Your task to perform on an android device: toggle airplane mode Image 0: 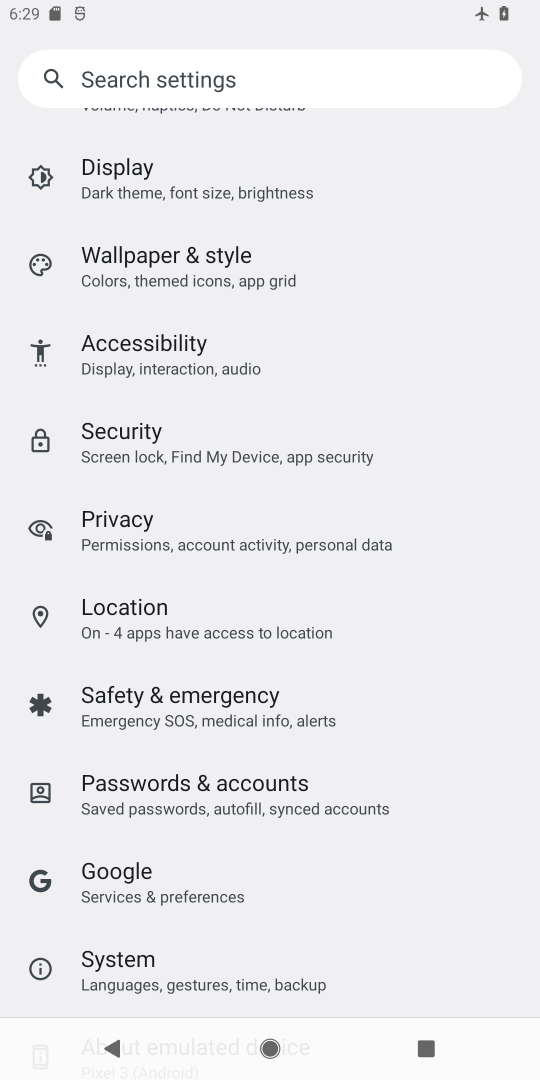
Step 0: press back button
Your task to perform on an android device: toggle airplane mode Image 1: 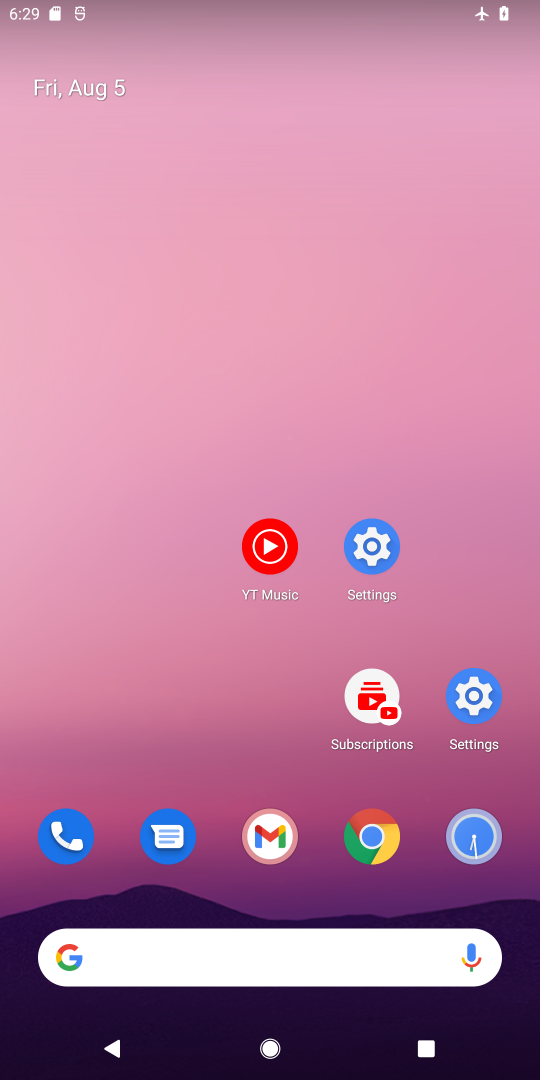
Step 1: drag from (360, 918) to (324, 581)
Your task to perform on an android device: toggle airplane mode Image 2: 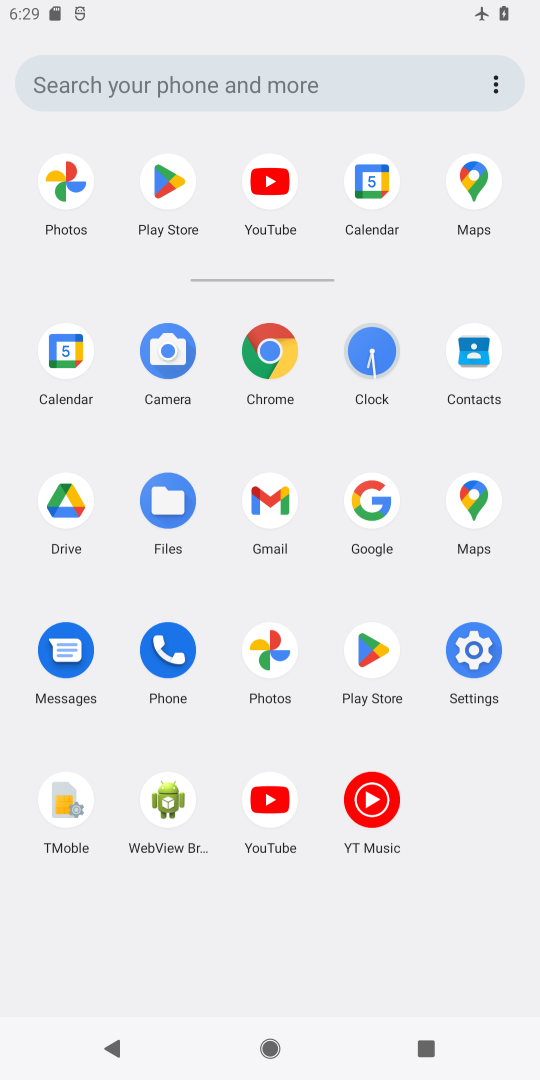
Step 2: drag from (340, 908) to (271, 384)
Your task to perform on an android device: toggle airplane mode Image 3: 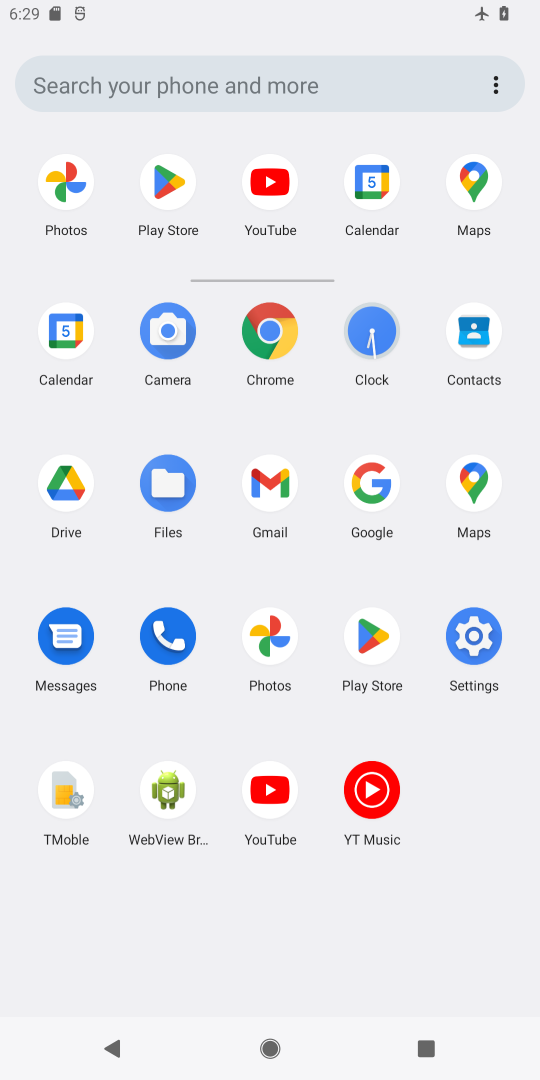
Step 3: click (289, 618)
Your task to perform on an android device: toggle airplane mode Image 4: 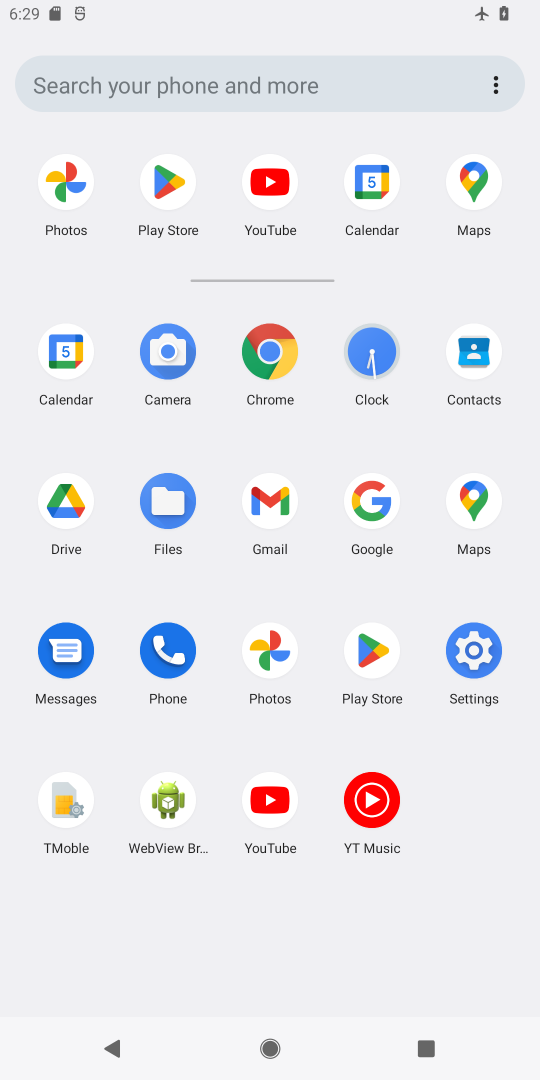
Step 4: click (466, 655)
Your task to perform on an android device: toggle airplane mode Image 5: 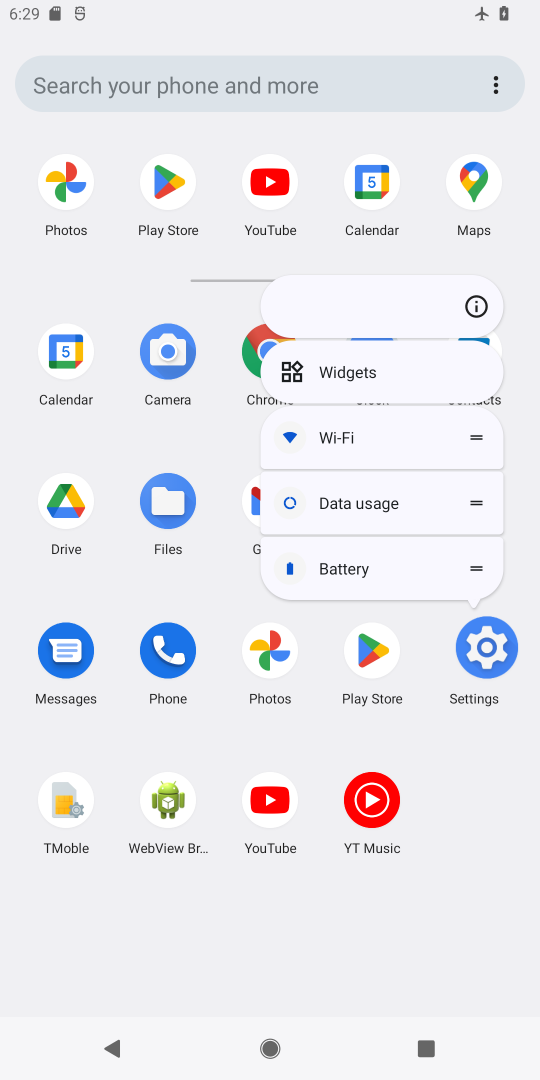
Step 5: click (479, 652)
Your task to perform on an android device: toggle airplane mode Image 6: 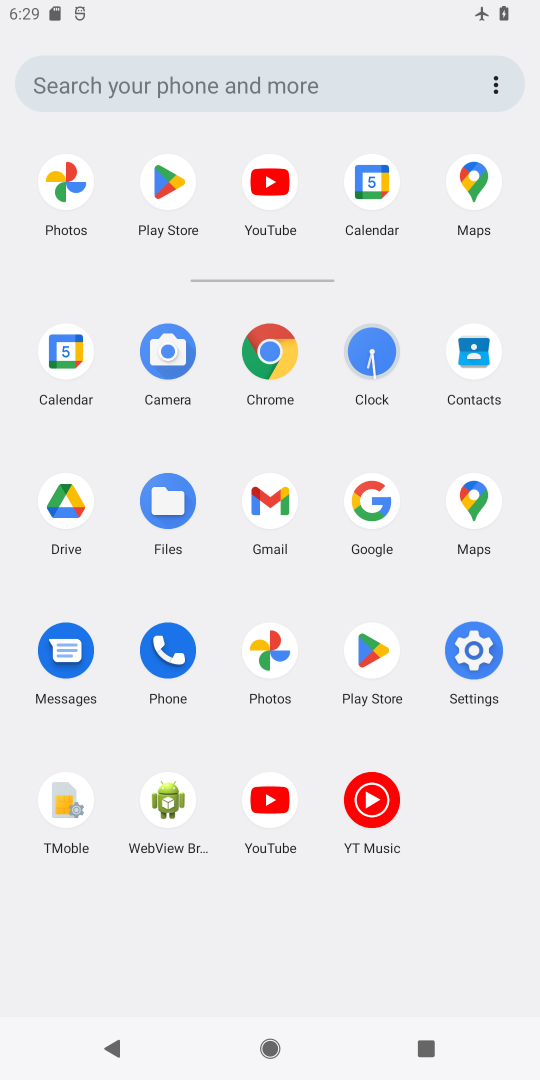
Step 6: click (481, 653)
Your task to perform on an android device: toggle airplane mode Image 7: 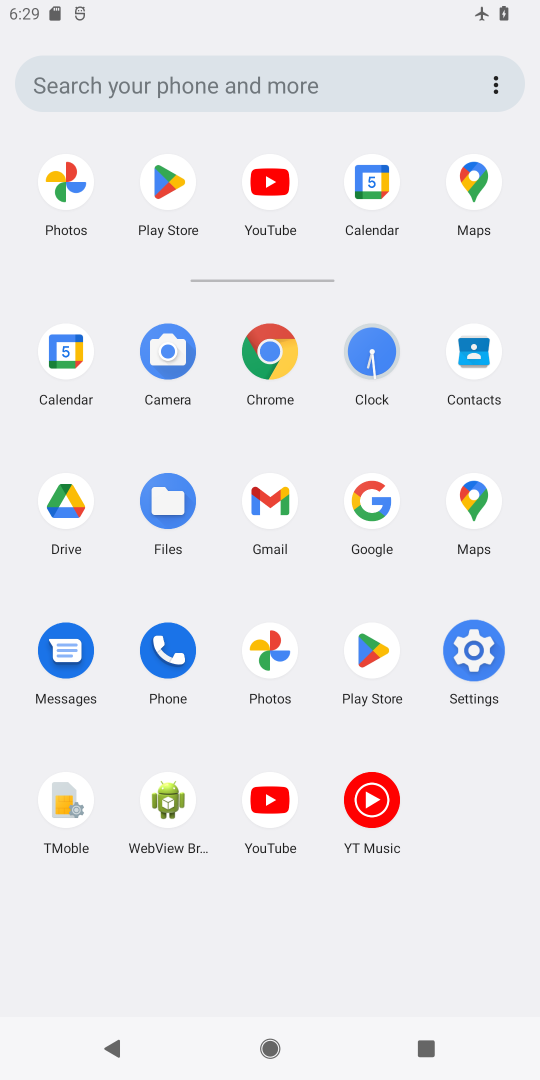
Step 7: click (486, 653)
Your task to perform on an android device: toggle airplane mode Image 8: 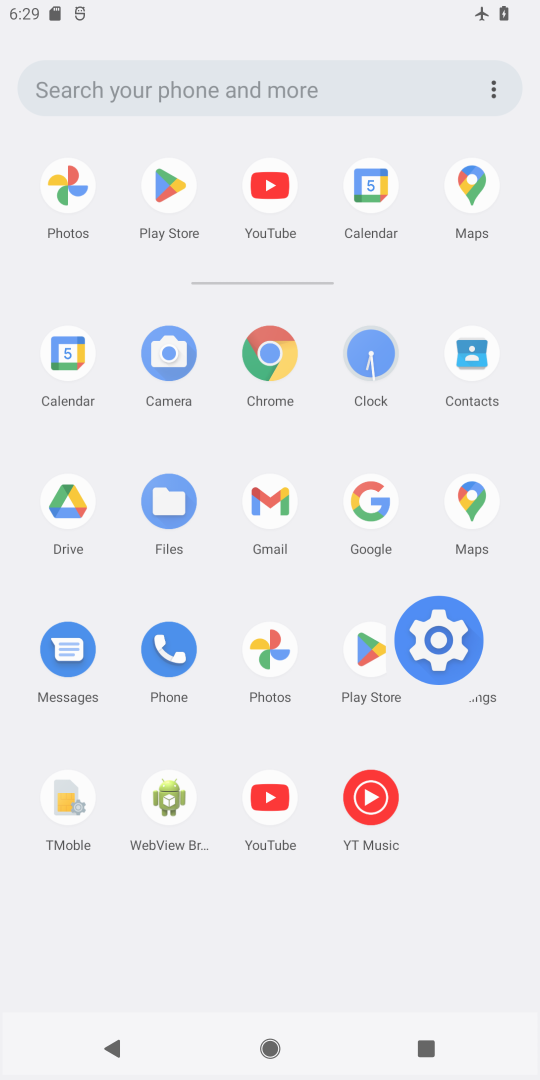
Step 8: click (486, 653)
Your task to perform on an android device: toggle airplane mode Image 9: 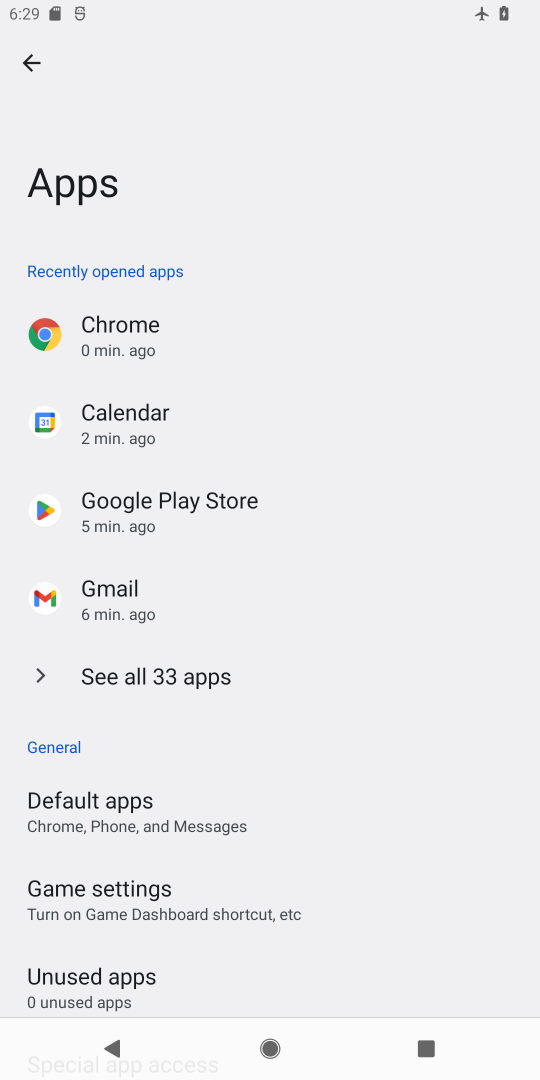
Step 9: click (33, 43)
Your task to perform on an android device: toggle airplane mode Image 10: 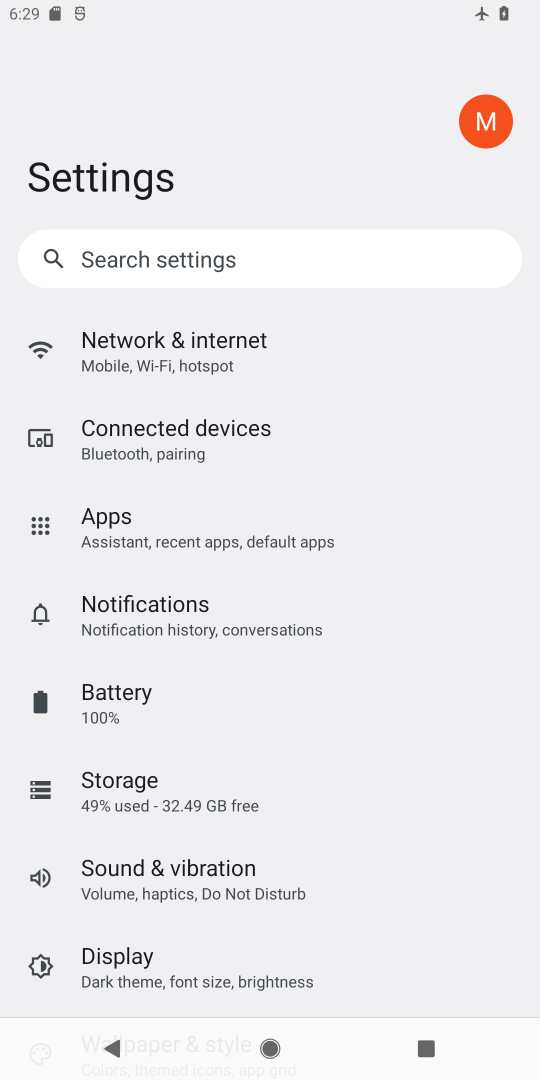
Step 10: click (23, 55)
Your task to perform on an android device: toggle airplane mode Image 11: 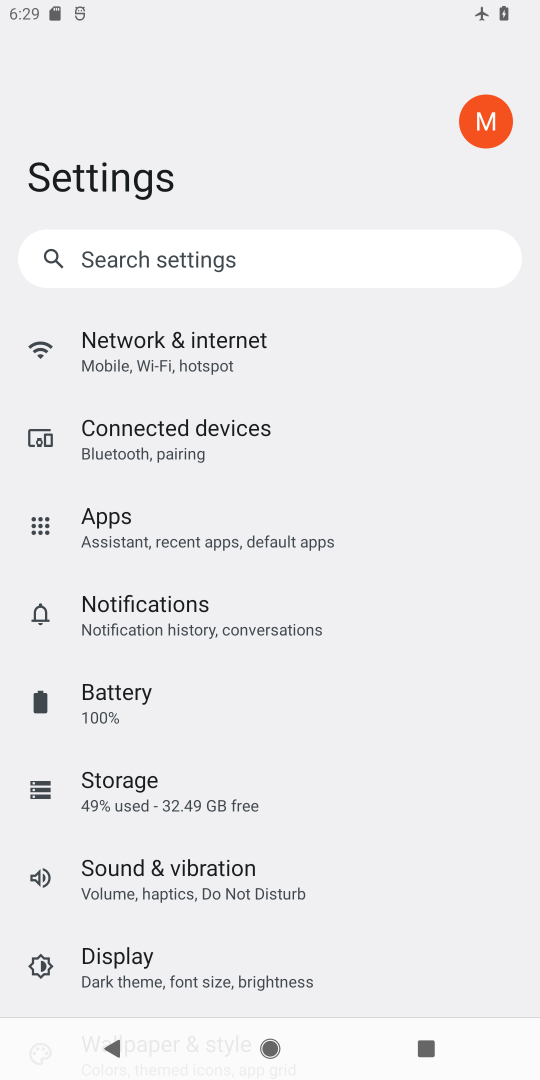
Step 11: click (126, 245)
Your task to perform on an android device: toggle airplane mode Image 12: 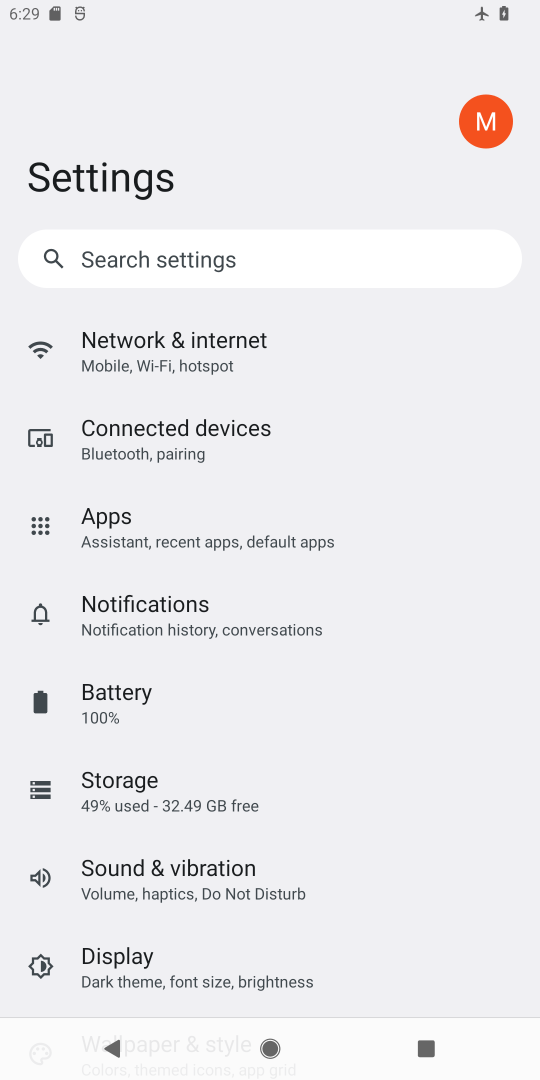
Step 12: click (126, 245)
Your task to perform on an android device: toggle airplane mode Image 13: 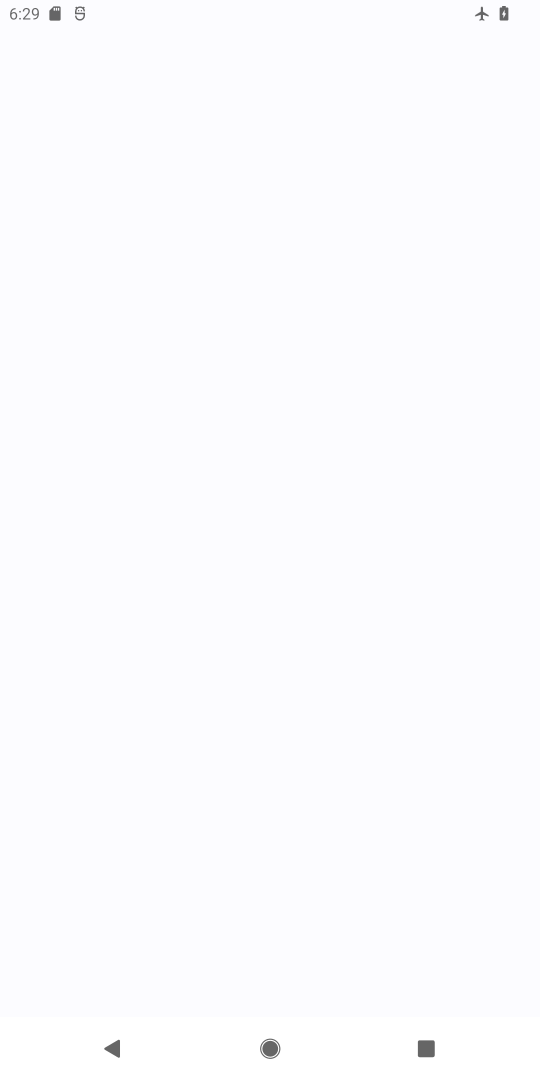
Step 13: click (128, 260)
Your task to perform on an android device: toggle airplane mode Image 14: 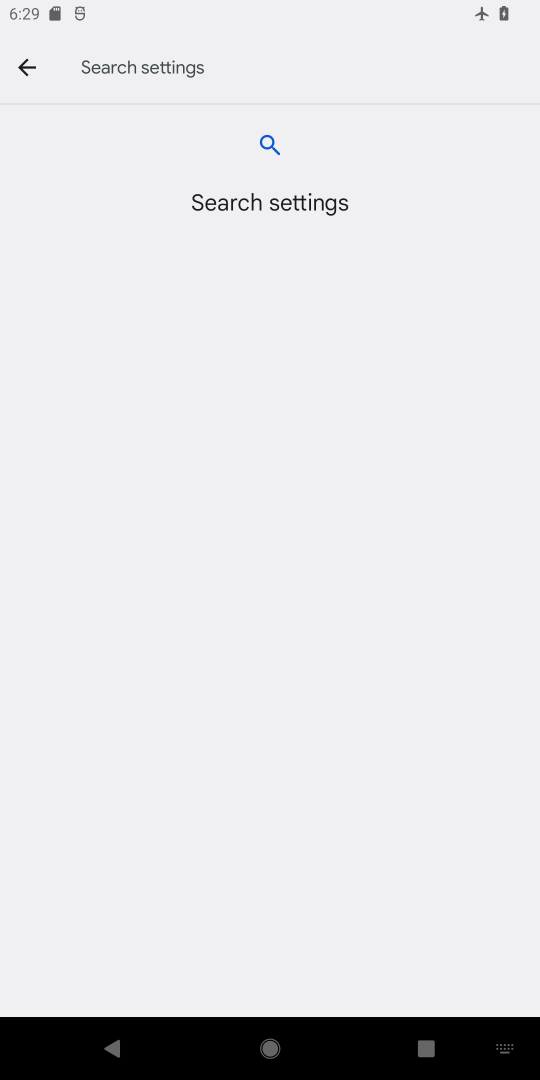
Step 14: click (27, 52)
Your task to perform on an android device: toggle airplane mode Image 15: 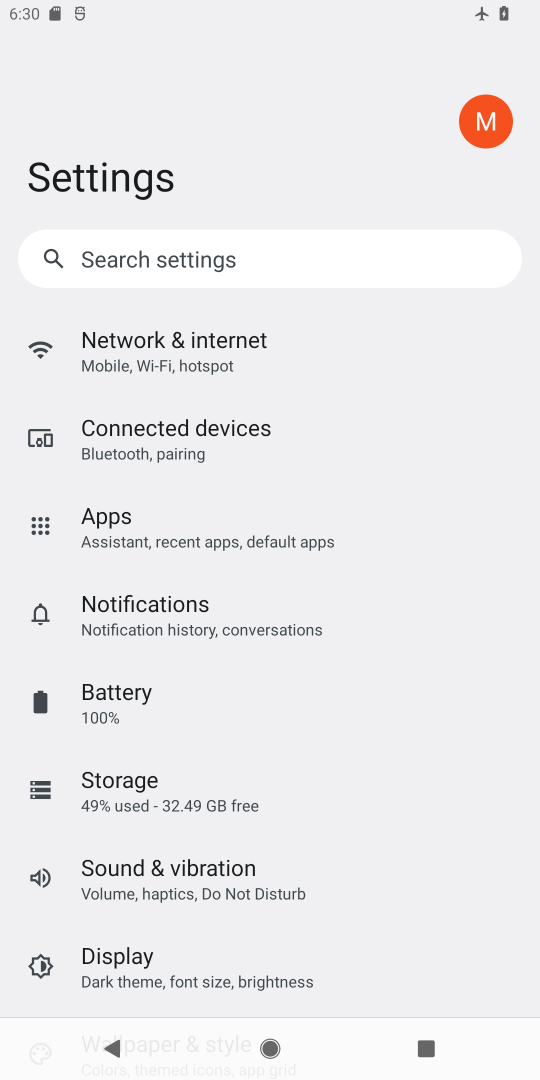
Step 15: drag from (224, 637) to (214, 151)
Your task to perform on an android device: toggle airplane mode Image 16: 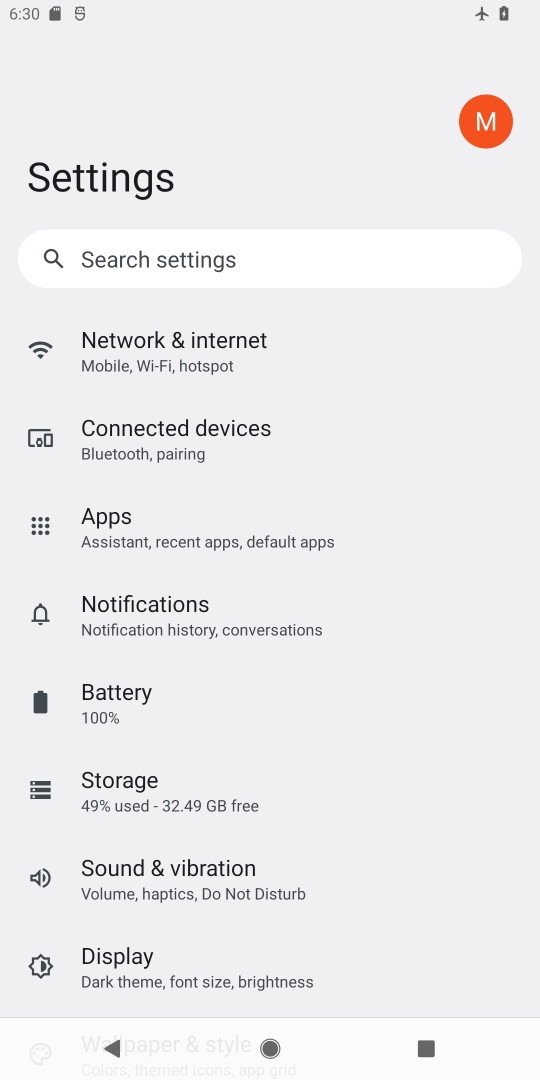
Step 16: drag from (337, 782) to (291, 456)
Your task to perform on an android device: toggle airplane mode Image 17: 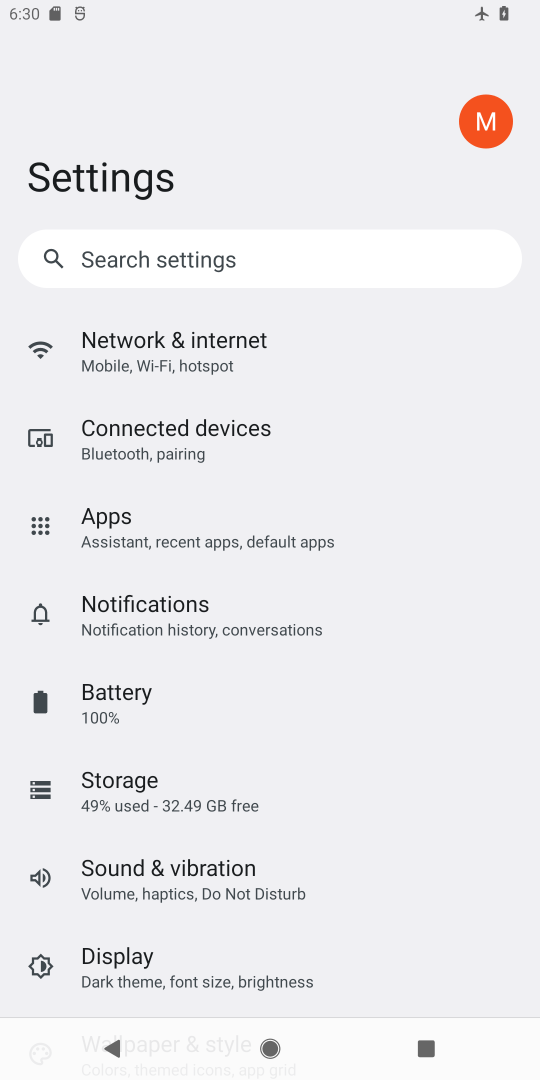
Step 17: drag from (276, 682) to (254, 551)
Your task to perform on an android device: toggle airplane mode Image 18: 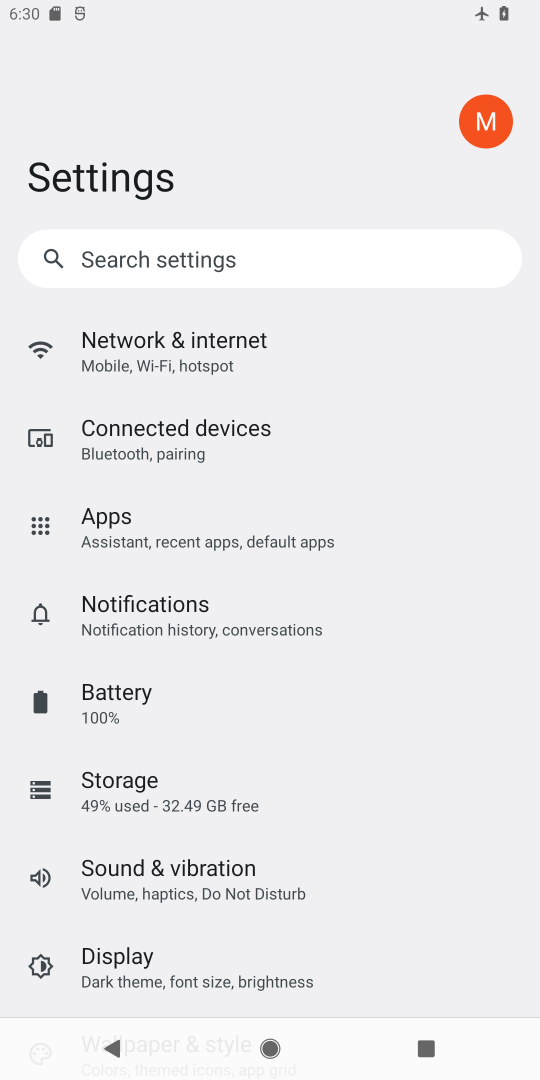
Step 18: click (169, 355)
Your task to perform on an android device: toggle airplane mode Image 19: 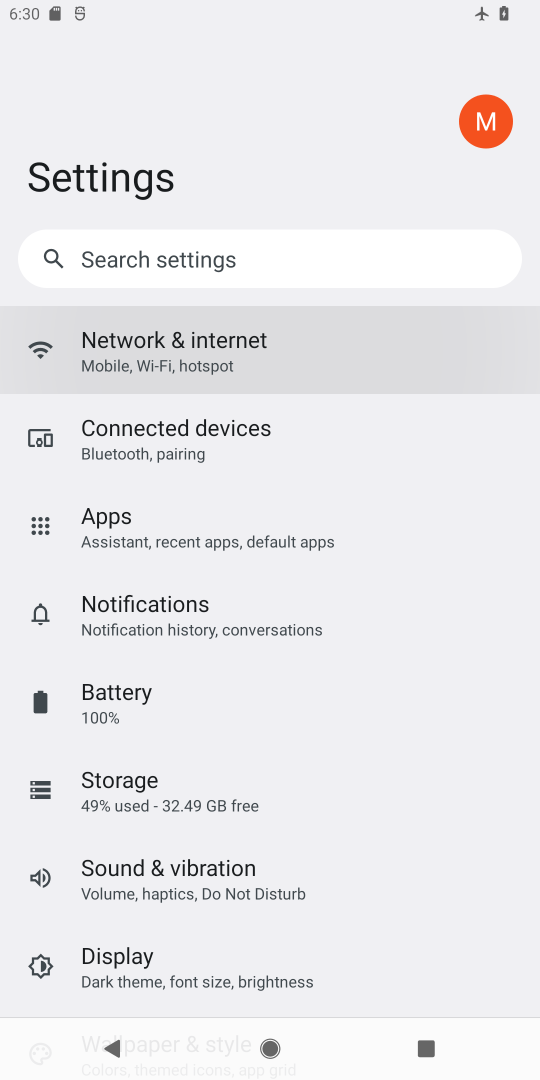
Step 19: click (169, 355)
Your task to perform on an android device: toggle airplane mode Image 20: 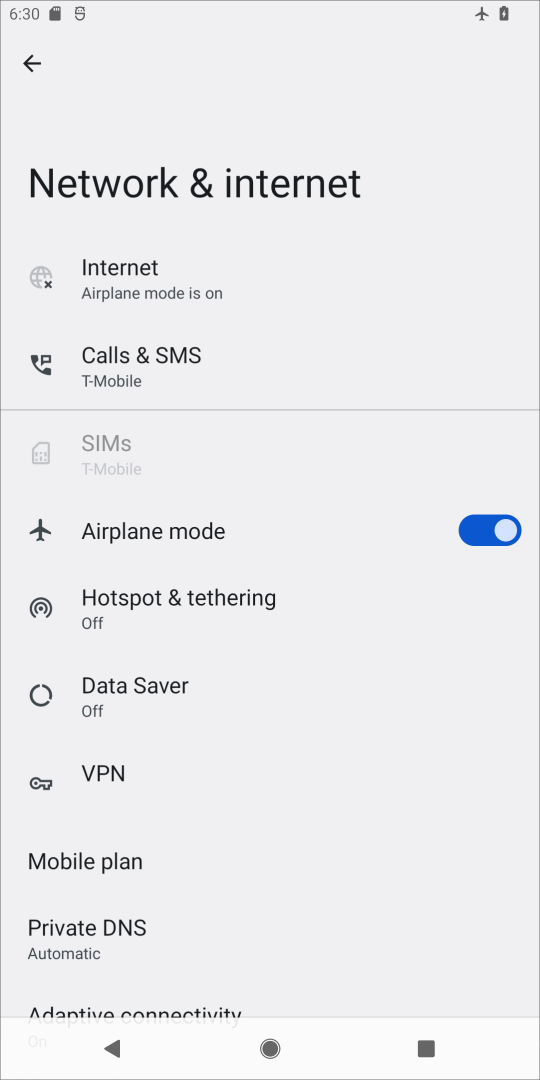
Step 20: click (169, 354)
Your task to perform on an android device: toggle airplane mode Image 21: 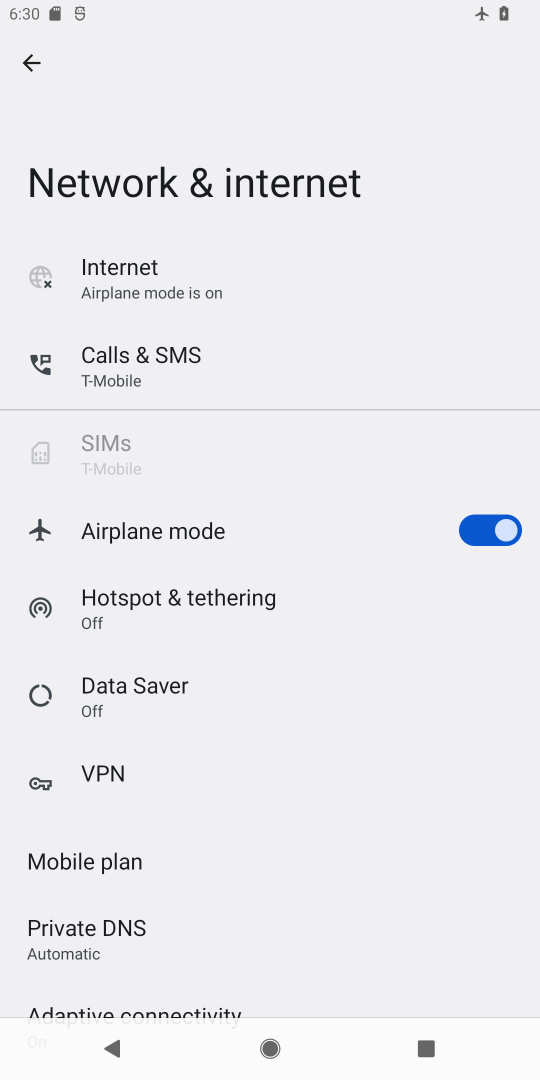
Step 21: click (169, 354)
Your task to perform on an android device: toggle airplane mode Image 22: 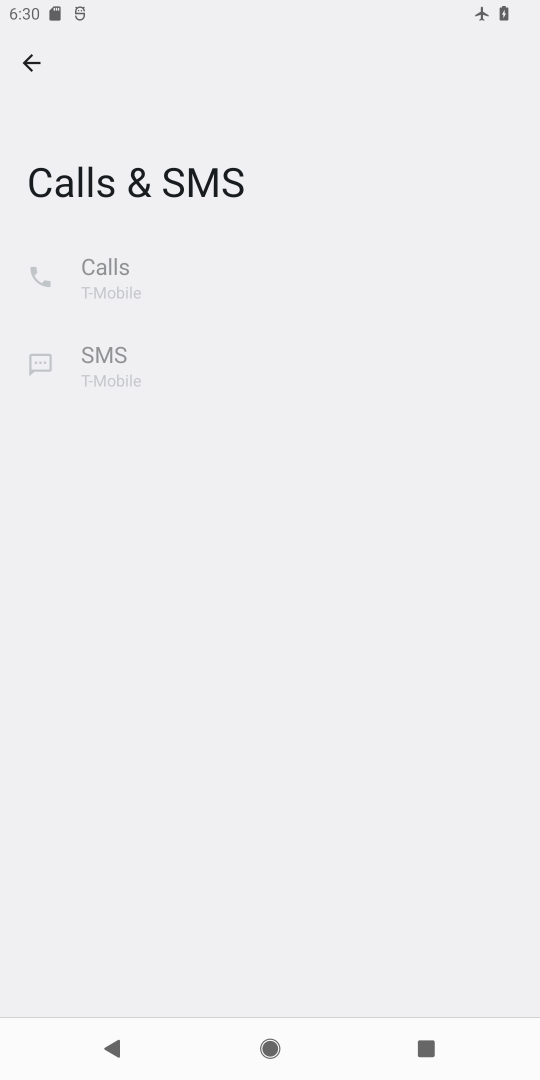
Step 22: click (169, 354)
Your task to perform on an android device: toggle airplane mode Image 23: 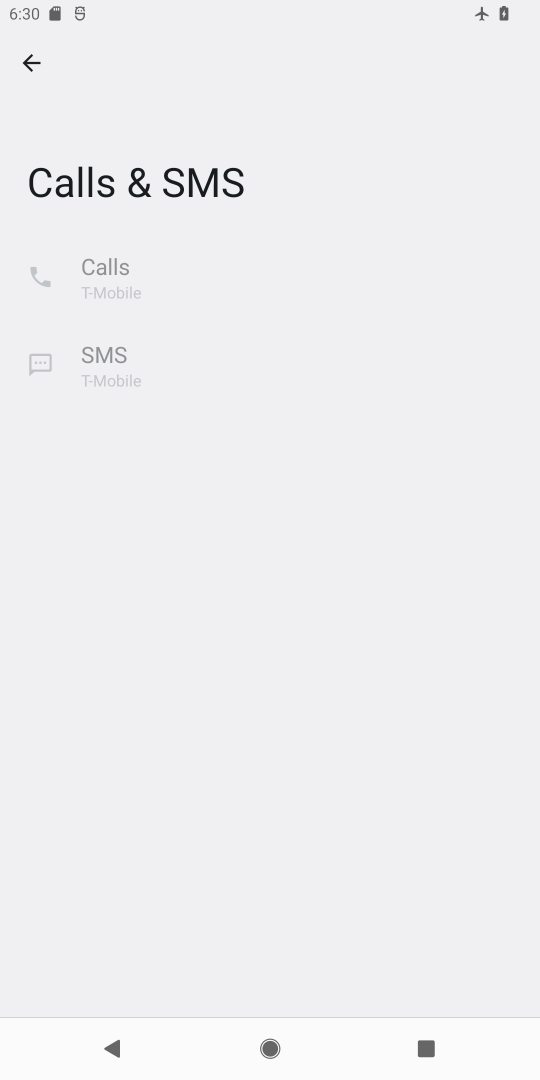
Step 23: click (137, 282)
Your task to perform on an android device: toggle airplane mode Image 24: 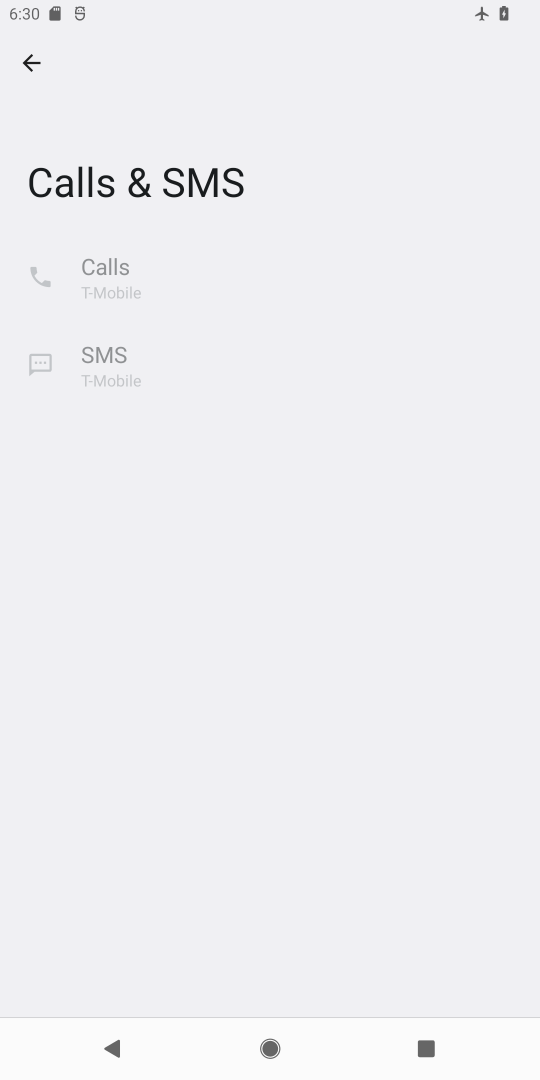
Step 24: click (137, 282)
Your task to perform on an android device: toggle airplane mode Image 25: 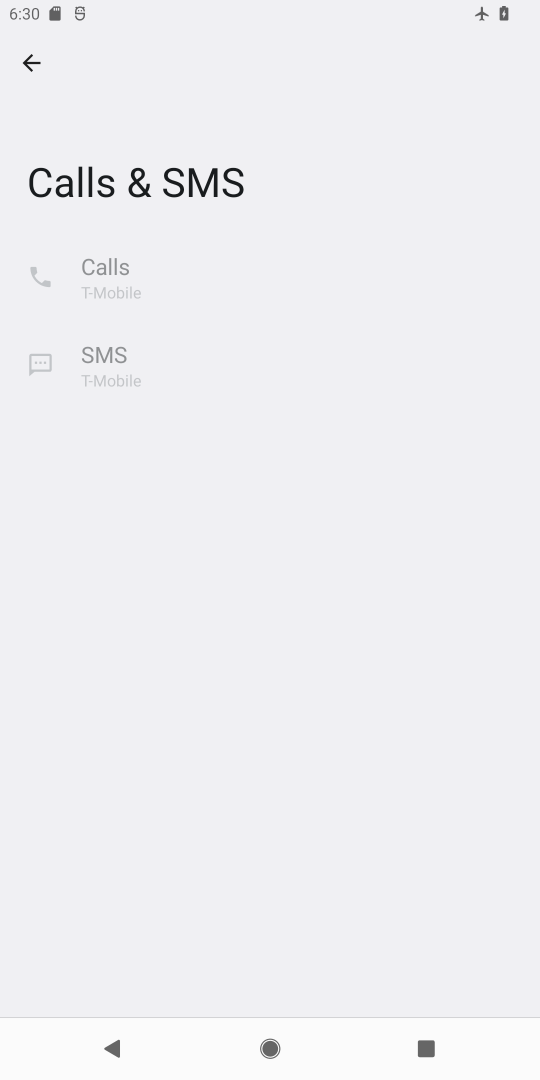
Step 25: click (29, 56)
Your task to perform on an android device: toggle airplane mode Image 26: 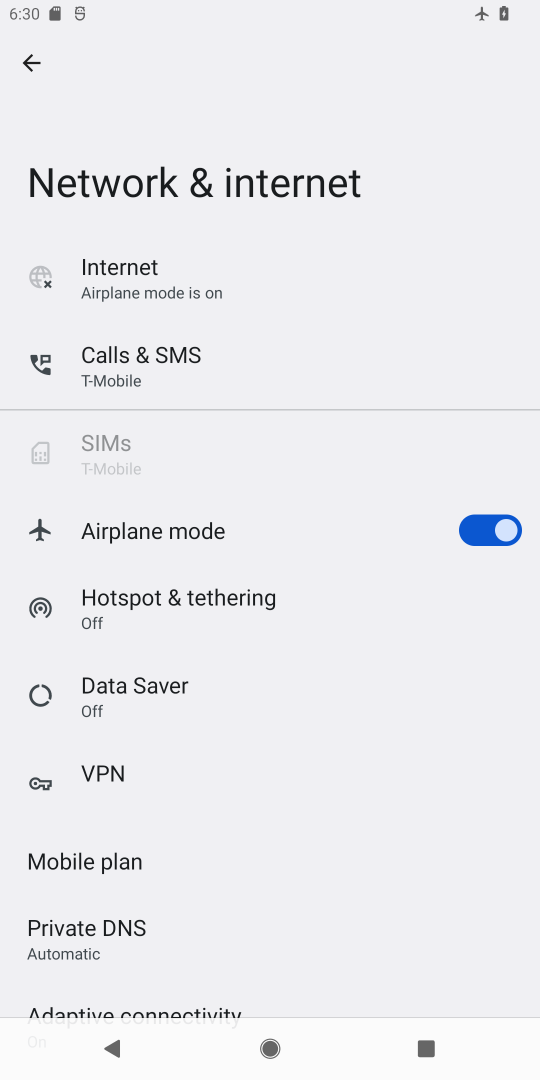
Step 26: click (122, 268)
Your task to perform on an android device: toggle airplane mode Image 27: 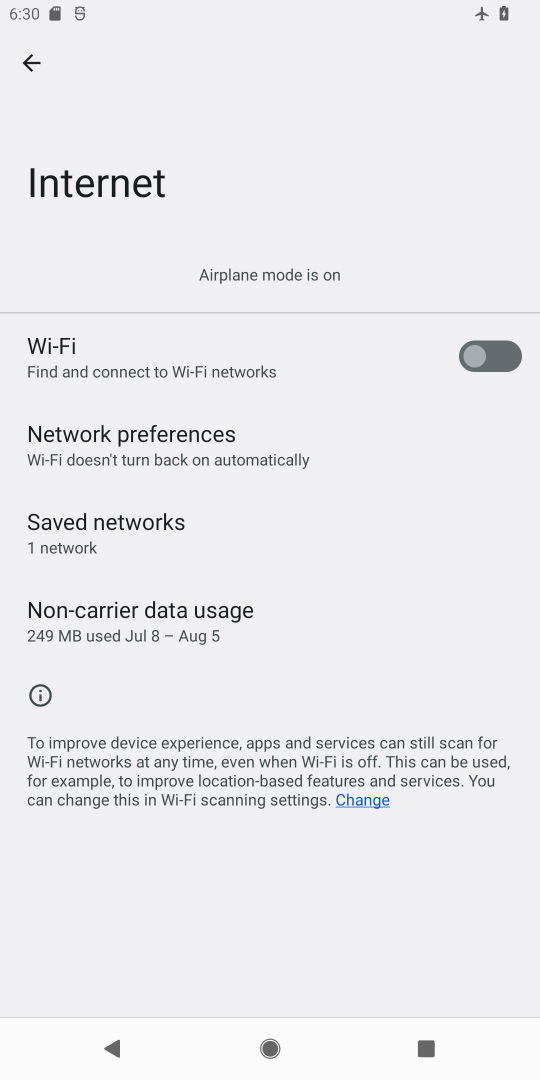
Step 27: click (28, 63)
Your task to perform on an android device: toggle airplane mode Image 28: 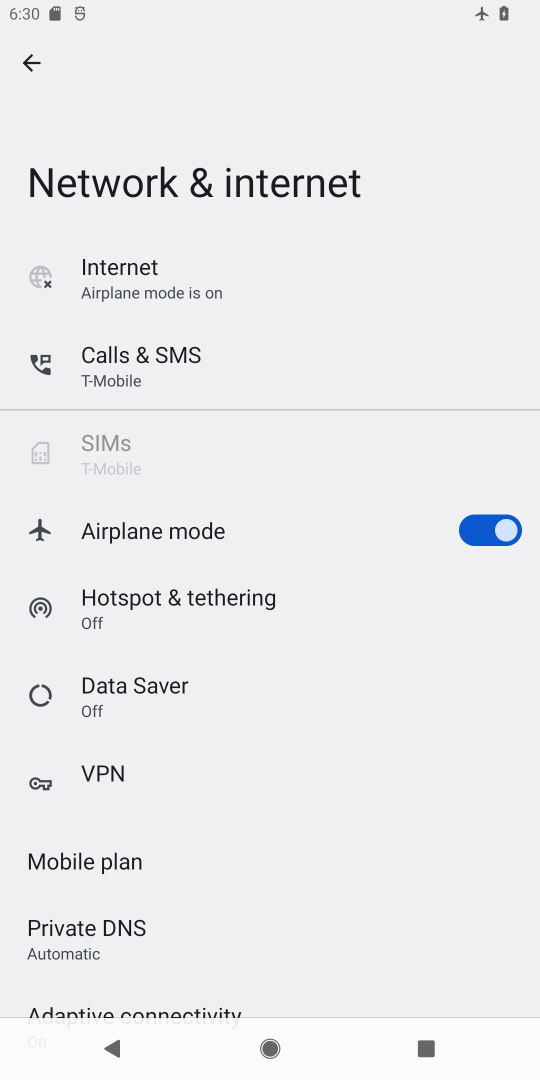
Step 28: click (495, 516)
Your task to perform on an android device: toggle airplane mode Image 29: 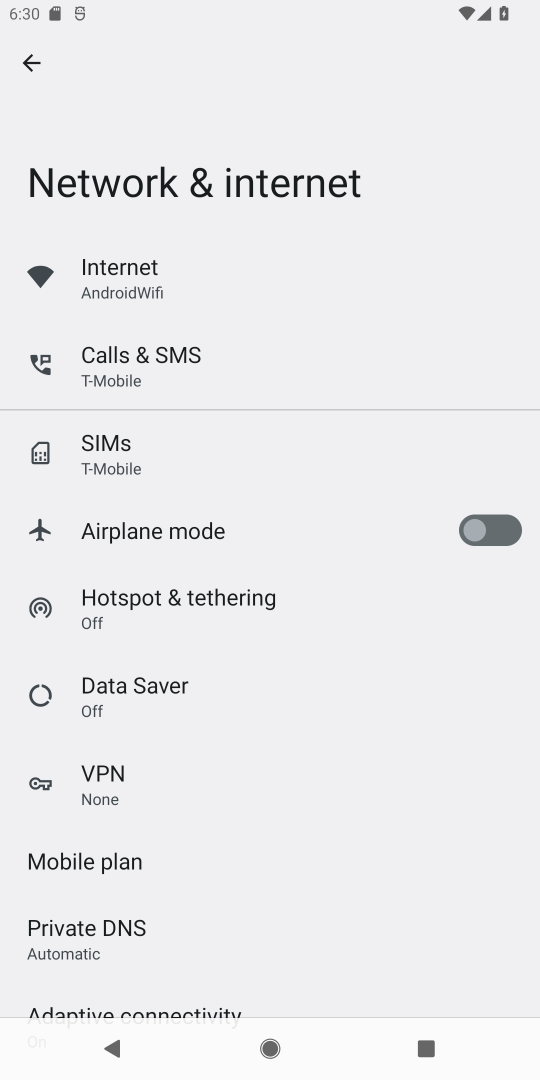
Step 29: task complete